Your task to perform on an android device: turn off sleep mode Image 0: 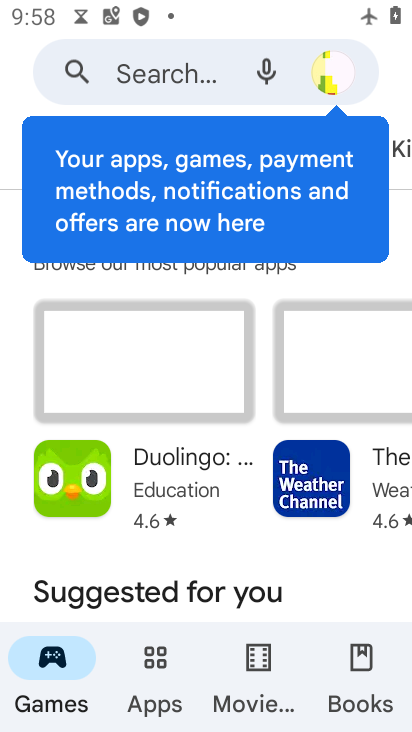
Step 0: press home button
Your task to perform on an android device: turn off sleep mode Image 1: 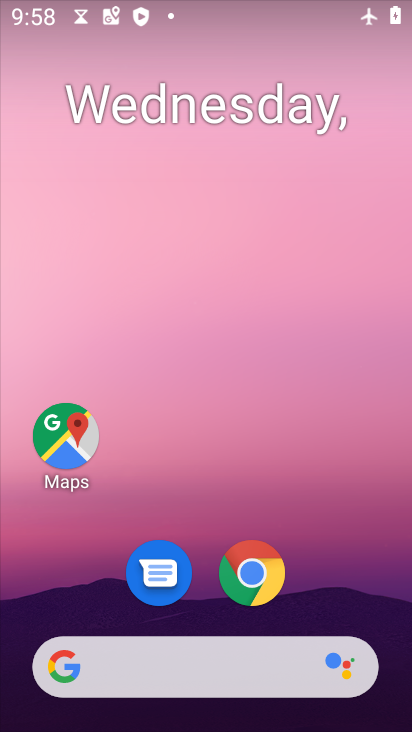
Step 1: drag from (296, 568) to (321, 177)
Your task to perform on an android device: turn off sleep mode Image 2: 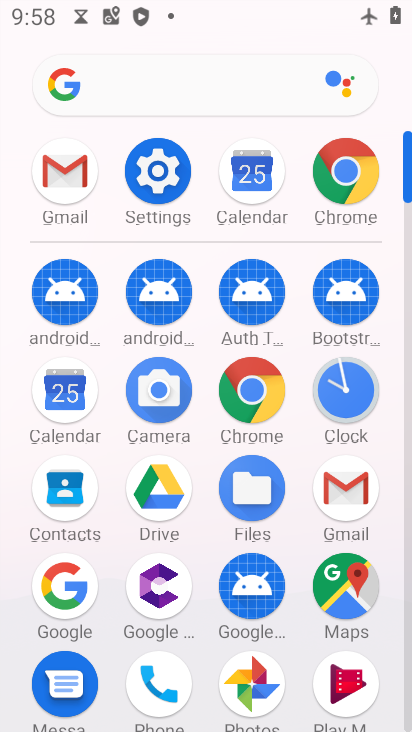
Step 2: click (143, 162)
Your task to perform on an android device: turn off sleep mode Image 3: 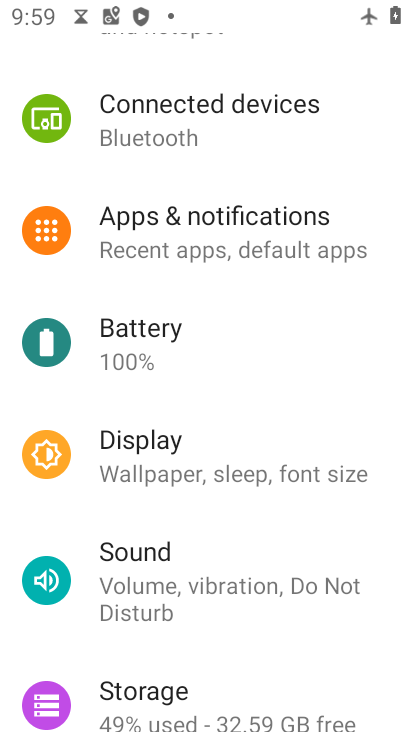
Step 3: task complete